Your task to perform on an android device: change text size in settings app Image 0: 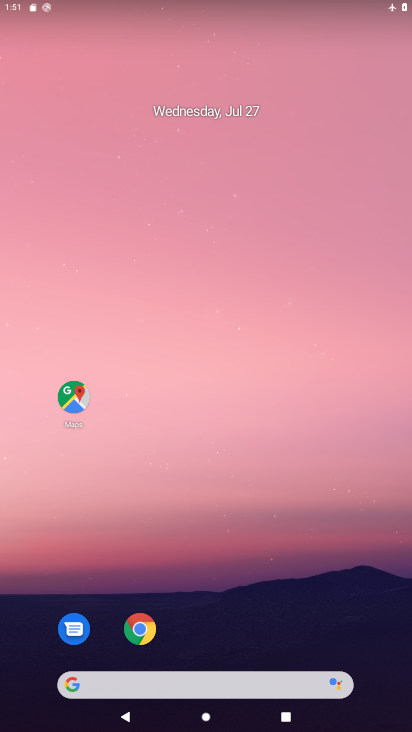
Step 0: drag from (261, 628) to (251, 1)
Your task to perform on an android device: change text size in settings app Image 1: 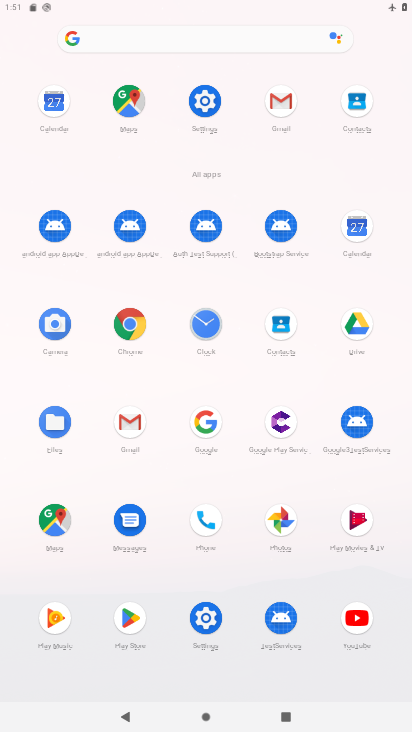
Step 1: click (199, 101)
Your task to perform on an android device: change text size in settings app Image 2: 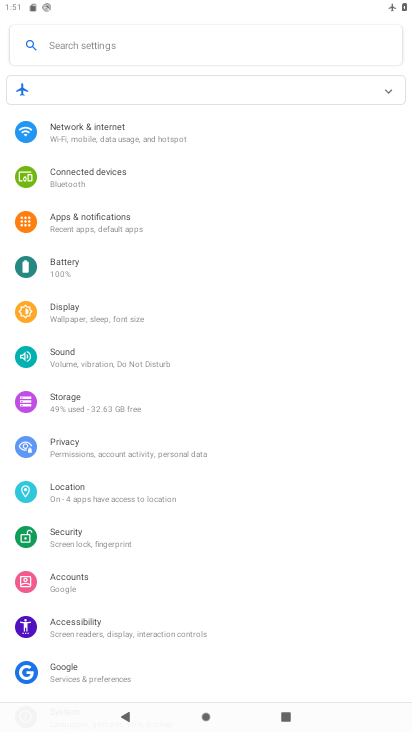
Step 2: click (160, 316)
Your task to perform on an android device: change text size in settings app Image 3: 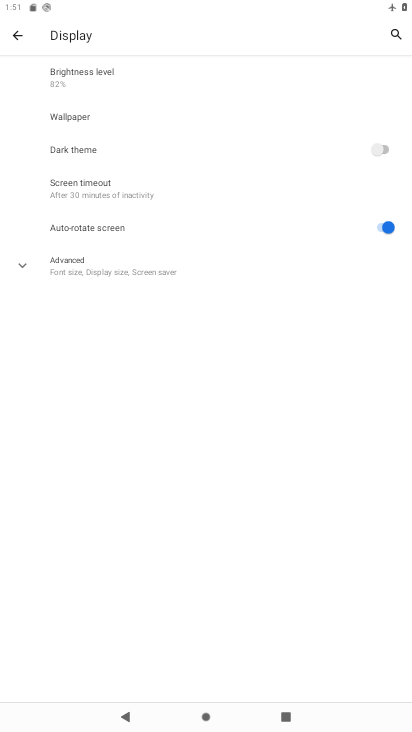
Step 3: click (151, 270)
Your task to perform on an android device: change text size in settings app Image 4: 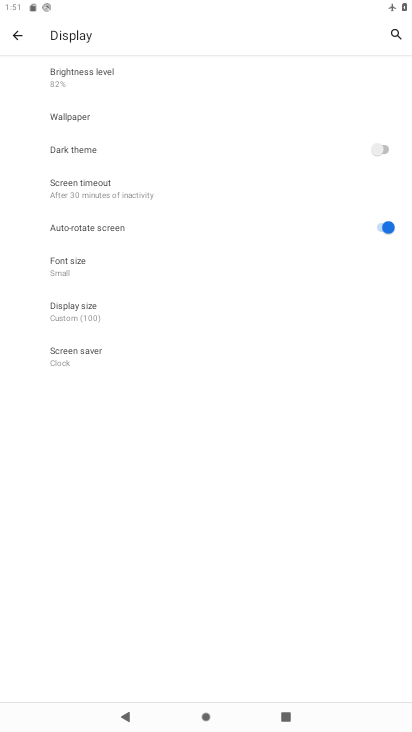
Step 4: click (84, 270)
Your task to perform on an android device: change text size in settings app Image 5: 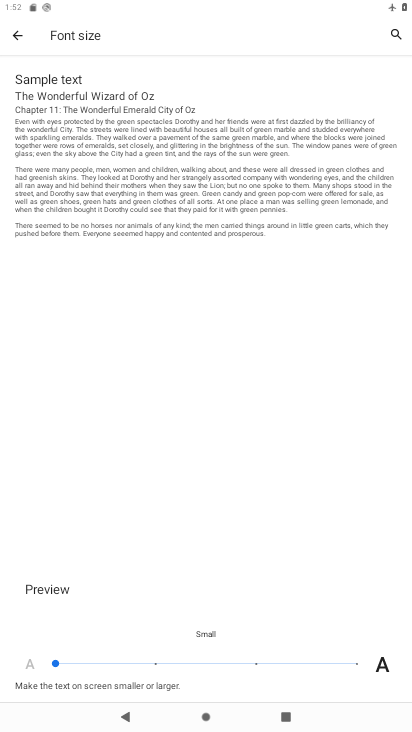
Step 5: click (355, 664)
Your task to perform on an android device: change text size in settings app Image 6: 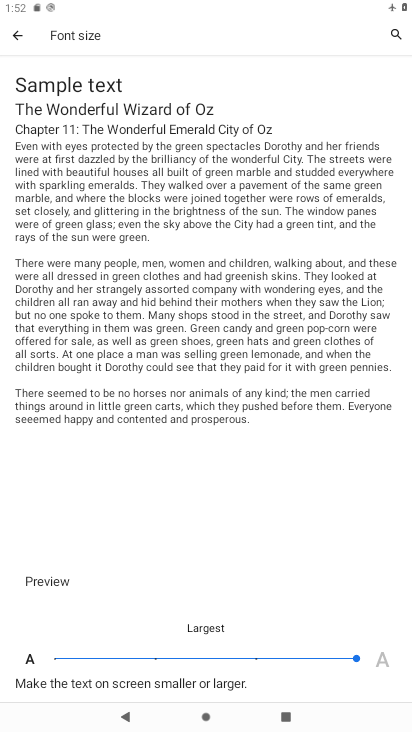
Step 6: task complete